Your task to perform on an android device: Open wifi settings Image 0: 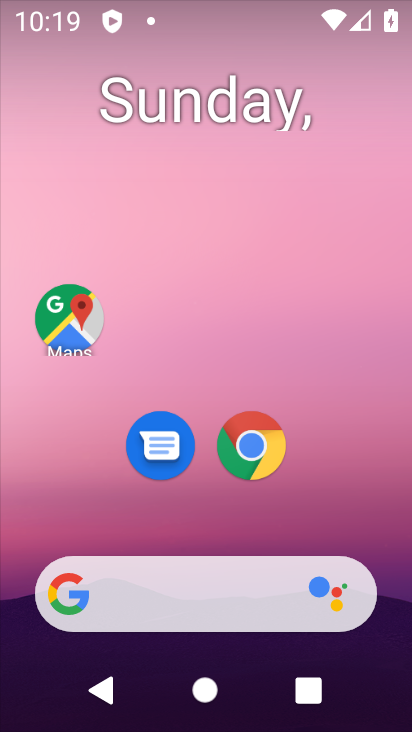
Step 0: drag from (204, 523) to (257, 0)
Your task to perform on an android device: Open wifi settings Image 1: 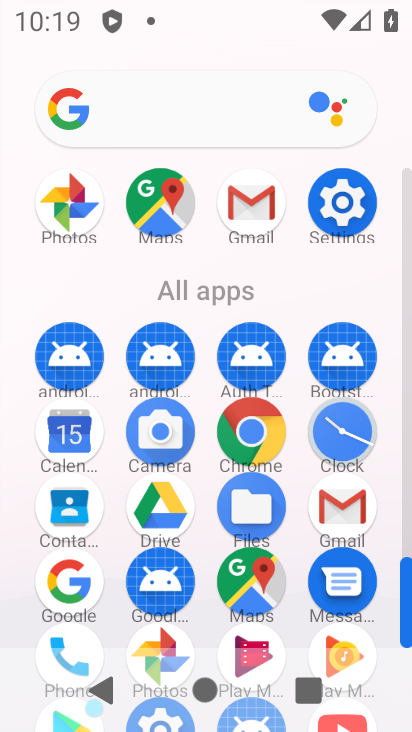
Step 1: click (335, 201)
Your task to perform on an android device: Open wifi settings Image 2: 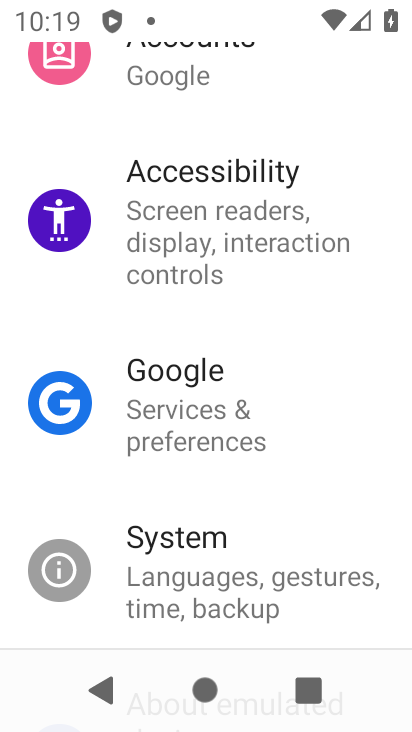
Step 2: drag from (286, 203) to (292, 686)
Your task to perform on an android device: Open wifi settings Image 3: 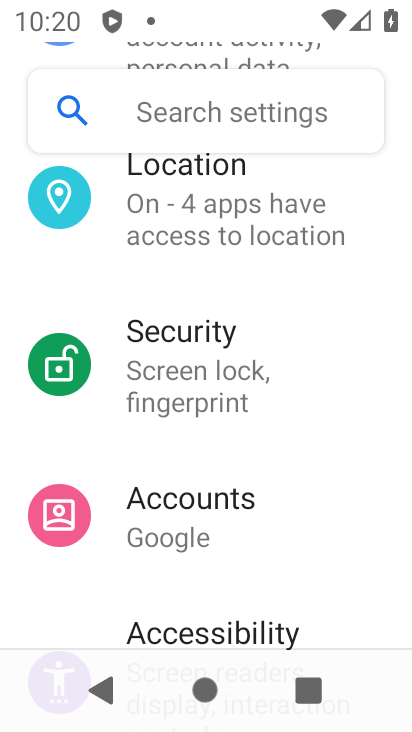
Step 3: drag from (313, 242) to (254, 723)
Your task to perform on an android device: Open wifi settings Image 4: 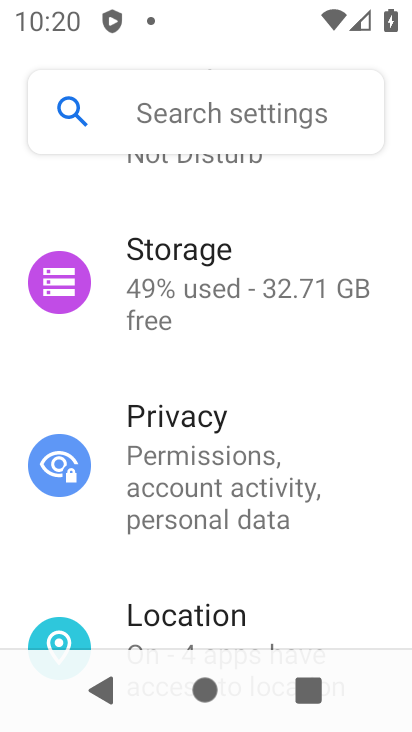
Step 4: drag from (253, 296) to (235, 722)
Your task to perform on an android device: Open wifi settings Image 5: 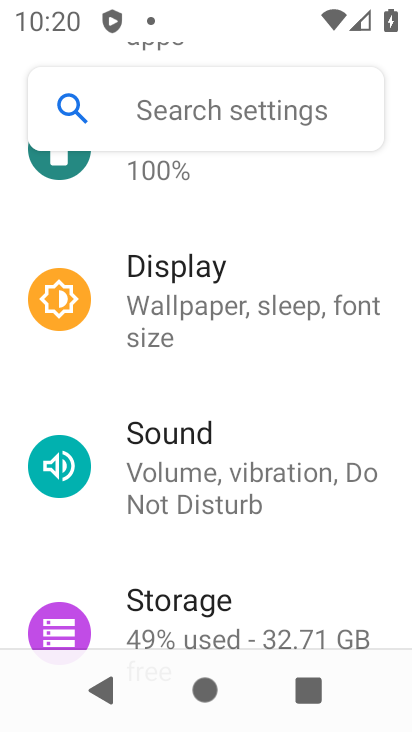
Step 5: drag from (215, 259) to (239, 679)
Your task to perform on an android device: Open wifi settings Image 6: 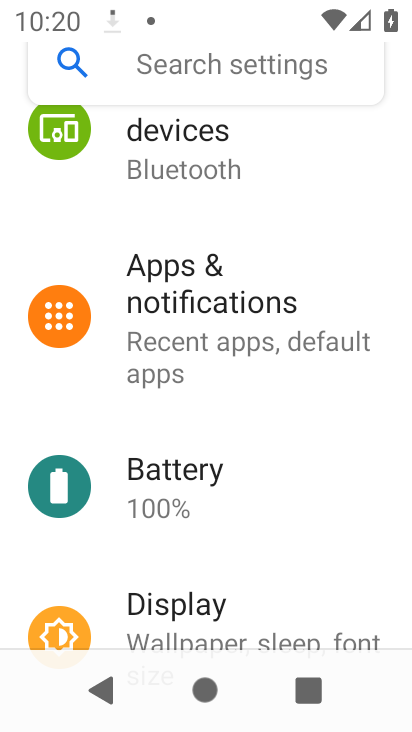
Step 6: drag from (209, 261) to (252, 710)
Your task to perform on an android device: Open wifi settings Image 7: 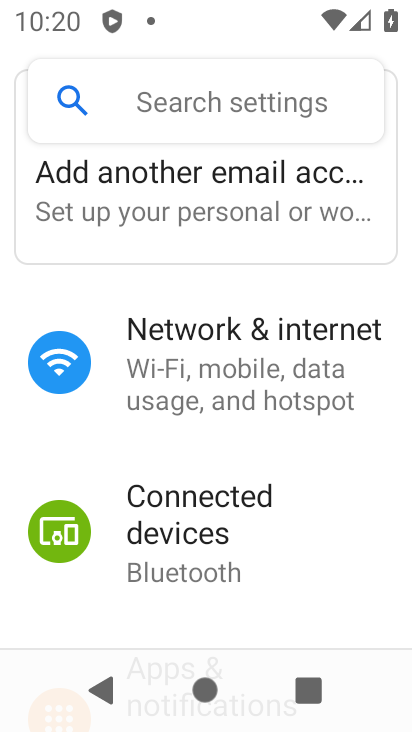
Step 7: click (201, 380)
Your task to perform on an android device: Open wifi settings Image 8: 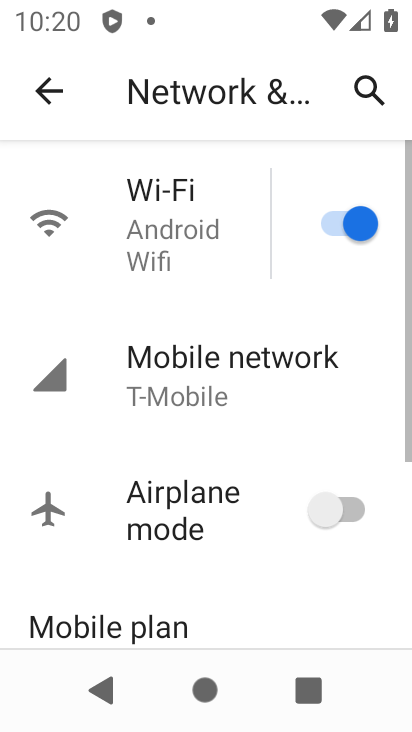
Step 8: click (204, 270)
Your task to perform on an android device: Open wifi settings Image 9: 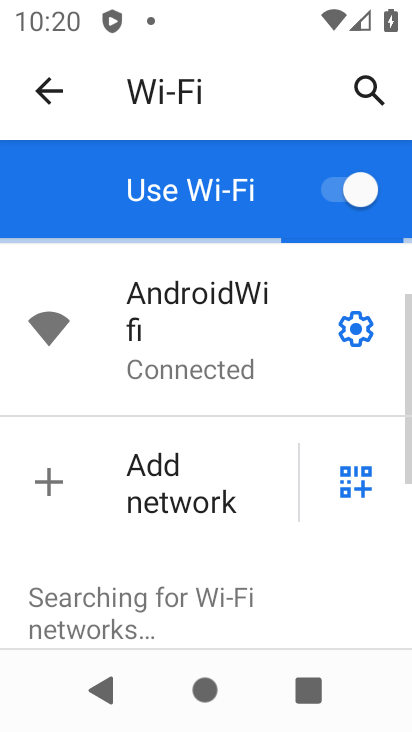
Step 9: task complete